Your task to perform on an android device: turn on sleep mode Image 0: 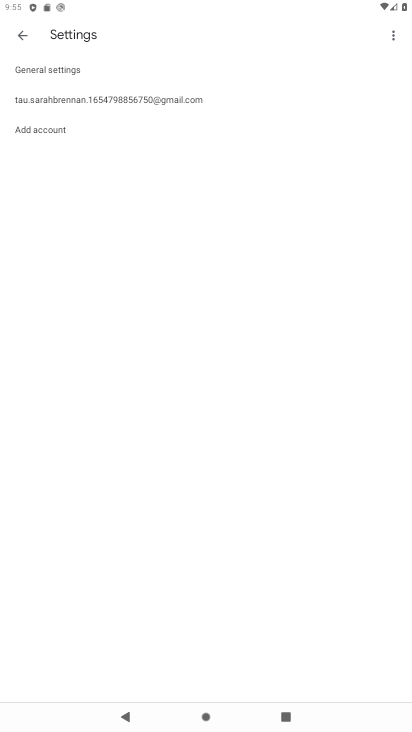
Step 0: press home button
Your task to perform on an android device: turn on sleep mode Image 1: 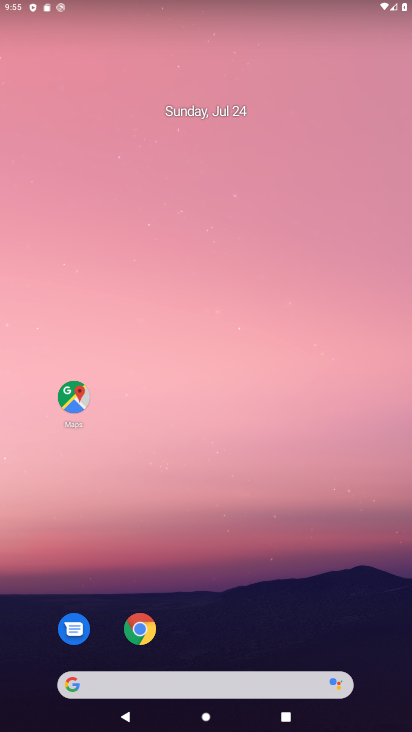
Step 1: drag from (162, 682) to (336, 73)
Your task to perform on an android device: turn on sleep mode Image 2: 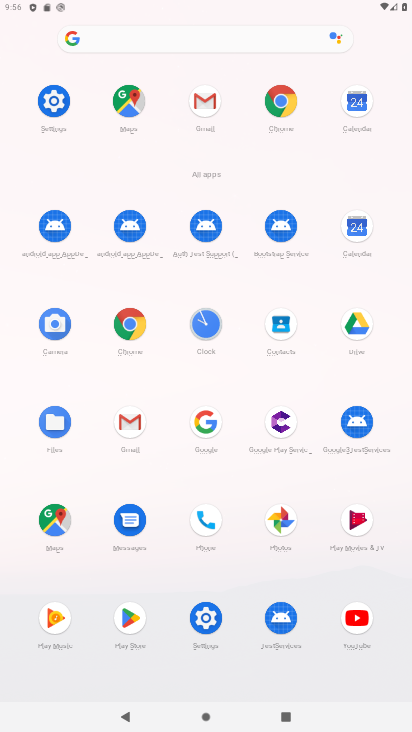
Step 2: click (54, 101)
Your task to perform on an android device: turn on sleep mode Image 3: 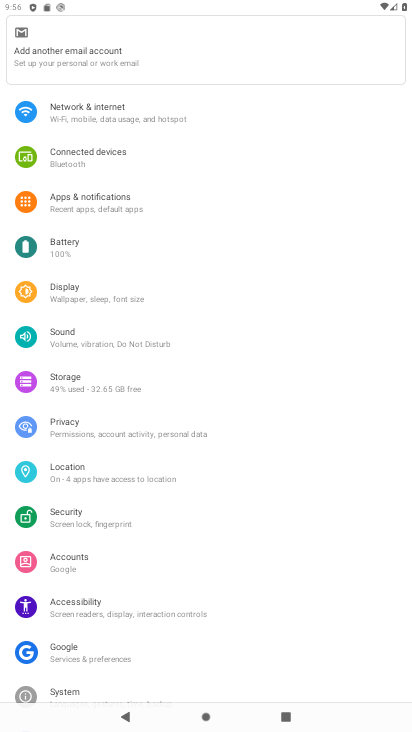
Step 3: click (73, 297)
Your task to perform on an android device: turn on sleep mode Image 4: 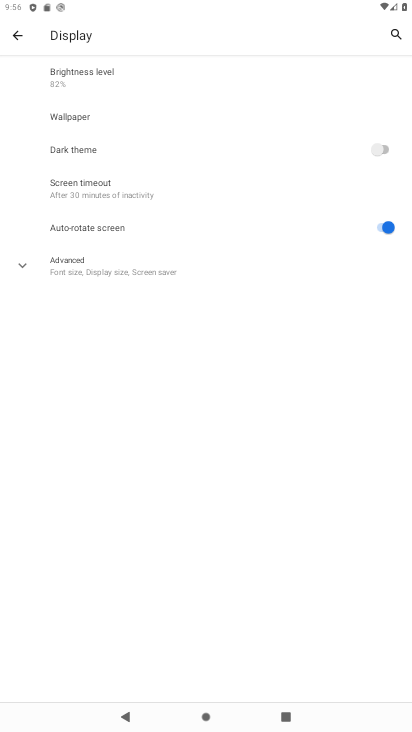
Step 4: click (82, 271)
Your task to perform on an android device: turn on sleep mode Image 5: 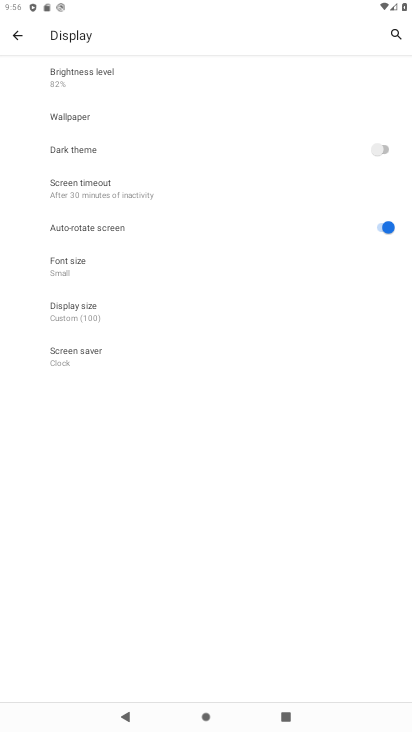
Step 5: click (66, 264)
Your task to perform on an android device: turn on sleep mode Image 6: 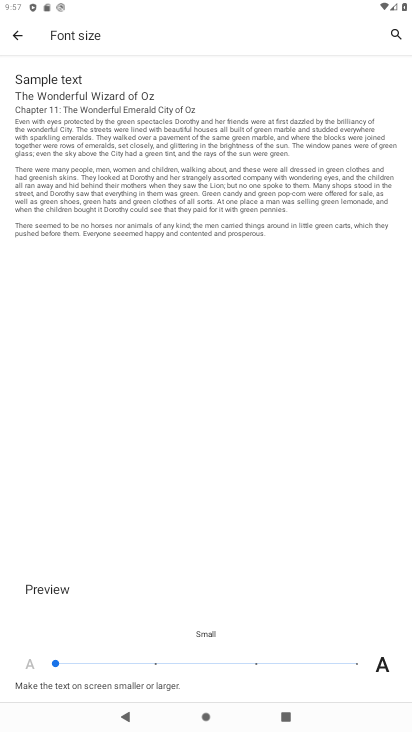
Step 6: press back button
Your task to perform on an android device: turn on sleep mode Image 7: 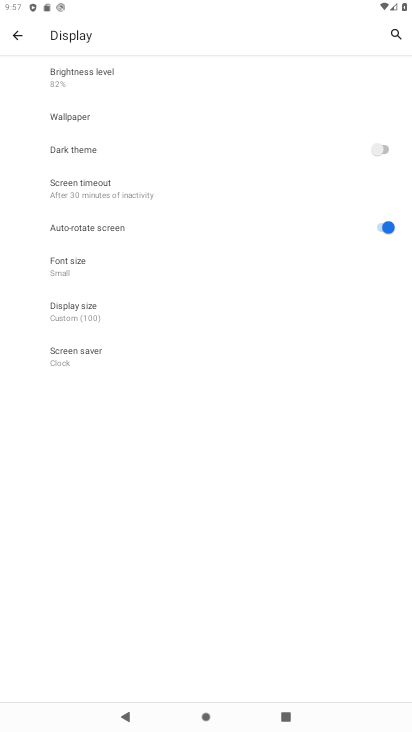
Step 7: click (108, 201)
Your task to perform on an android device: turn on sleep mode Image 8: 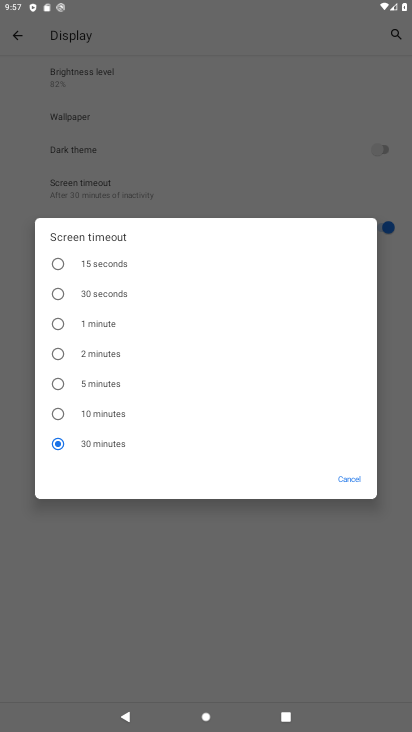
Step 8: click (344, 475)
Your task to perform on an android device: turn on sleep mode Image 9: 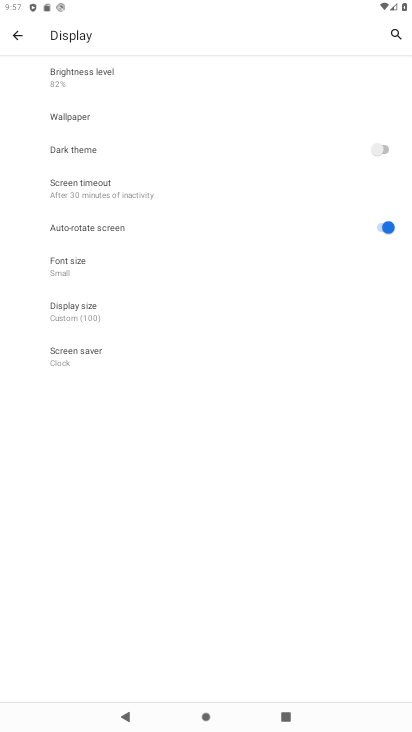
Step 9: task complete